Your task to perform on an android device: Open Yahoo.com Image 0: 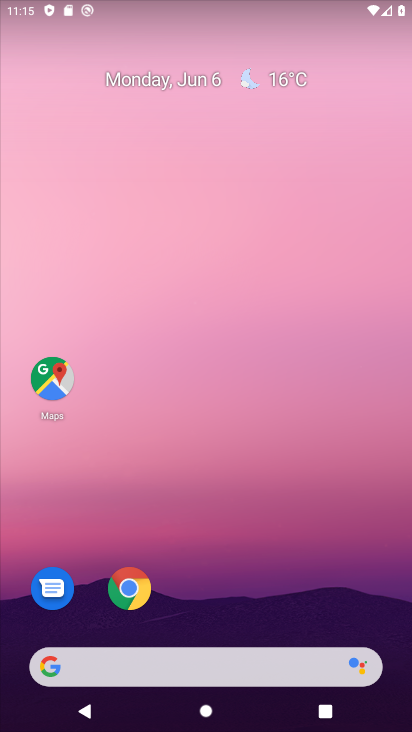
Step 0: click (132, 588)
Your task to perform on an android device: Open Yahoo.com Image 1: 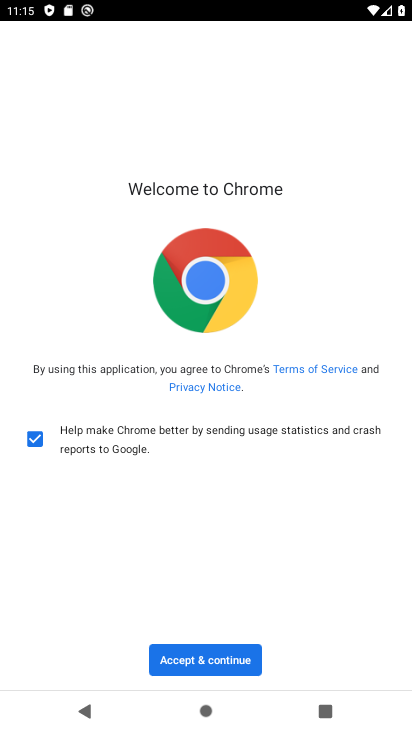
Step 1: click (196, 653)
Your task to perform on an android device: Open Yahoo.com Image 2: 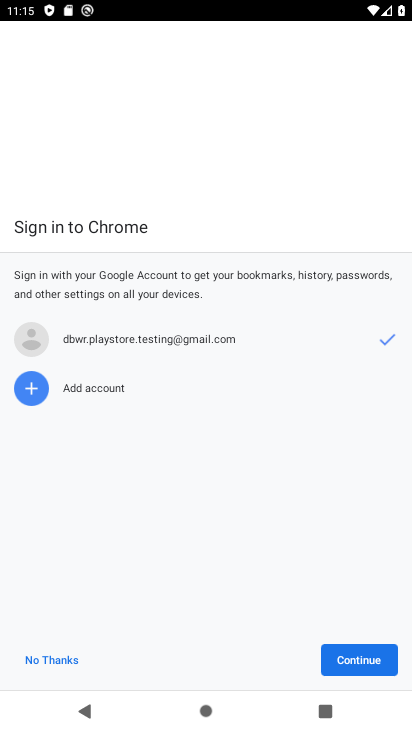
Step 2: click (362, 660)
Your task to perform on an android device: Open Yahoo.com Image 3: 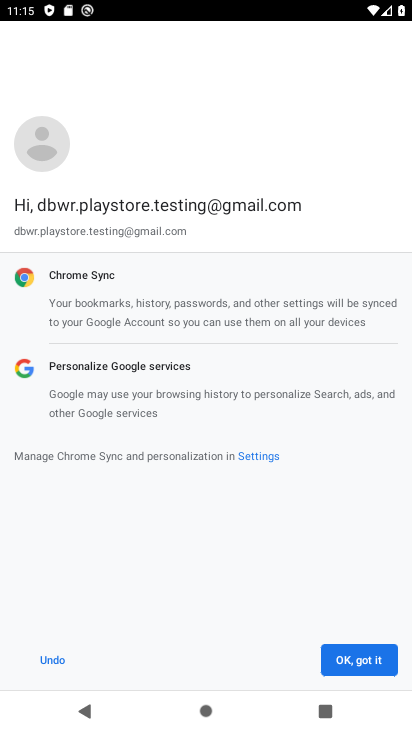
Step 3: click (362, 660)
Your task to perform on an android device: Open Yahoo.com Image 4: 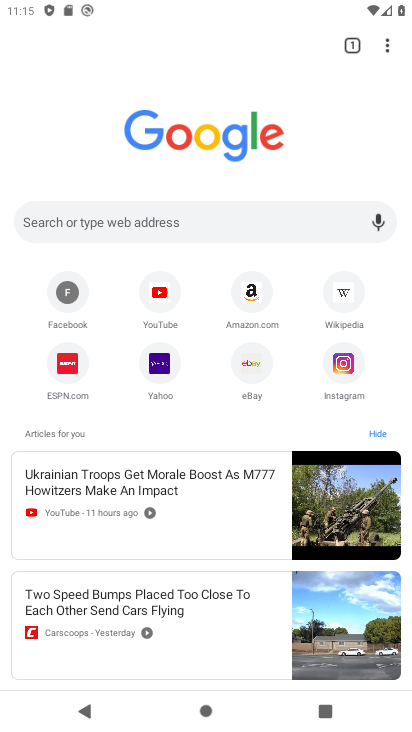
Step 4: click (293, 223)
Your task to perform on an android device: Open Yahoo.com Image 5: 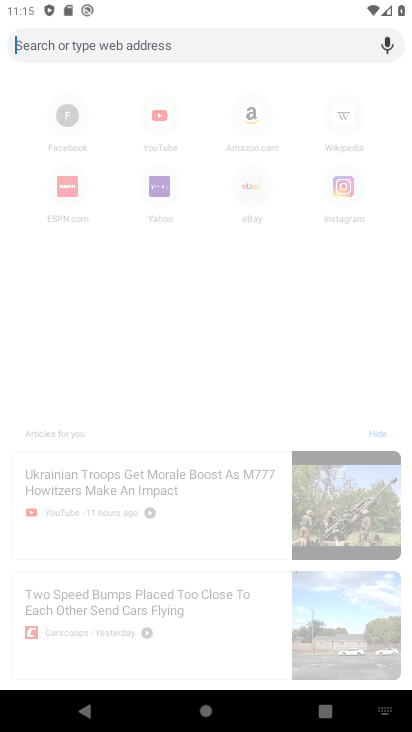
Step 5: type "Yahoo.com"
Your task to perform on an android device: Open Yahoo.com Image 6: 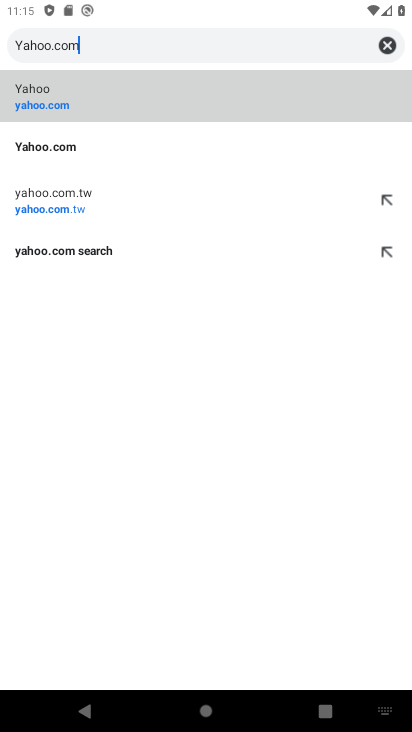
Step 6: click (48, 150)
Your task to perform on an android device: Open Yahoo.com Image 7: 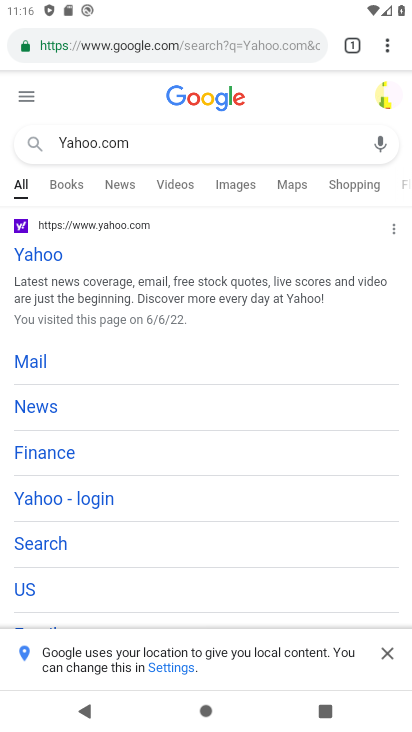
Step 7: click (59, 259)
Your task to perform on an android device: Open Yahoo.com Image 8: 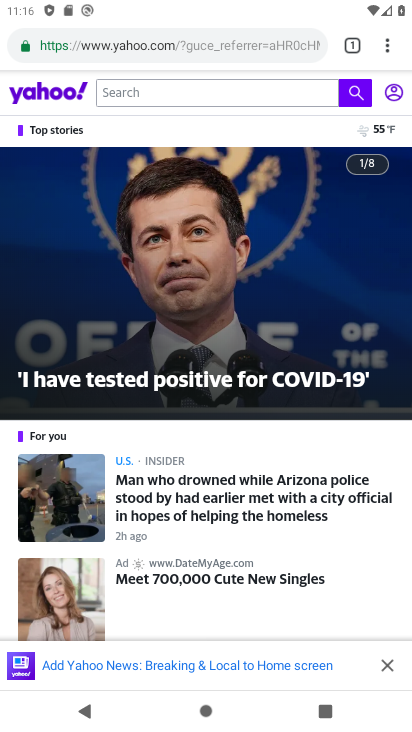
Step 8: task complete